Your task to perform on an android device: add a contact in the contacts app Image 0: 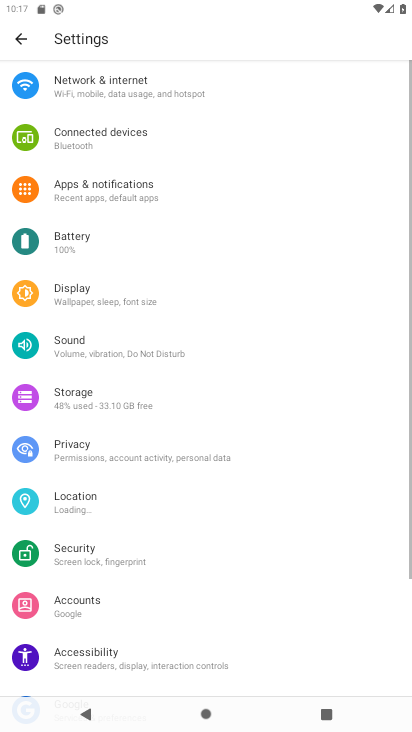
Step 0: press home button
Your task to perform on an android device: add a contact in the contacts app Image 1: 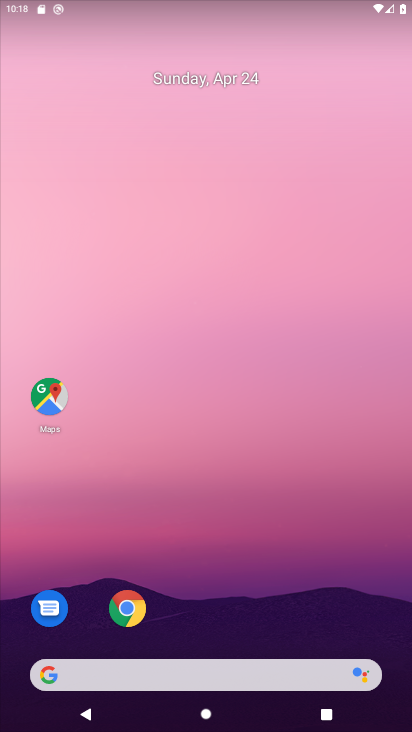
Step 1: drag from (197, 631) to (200, 12)
Your task to perform on an android device: add a contact in the contacts app Image 2: 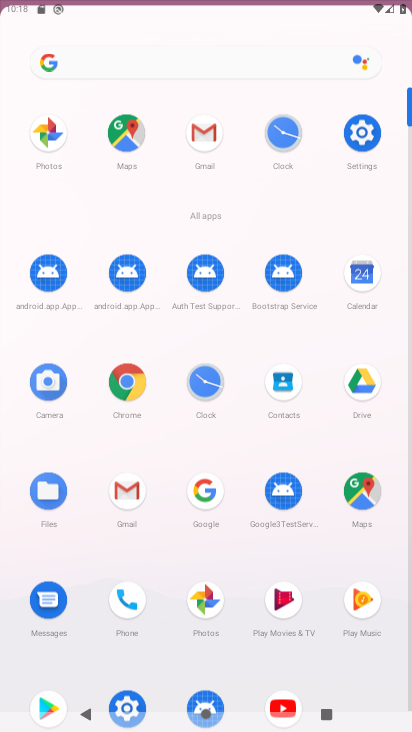
Step 2: click (135, 581)
Your task to perform on an android device: add a contact in the contacts app Image 3: 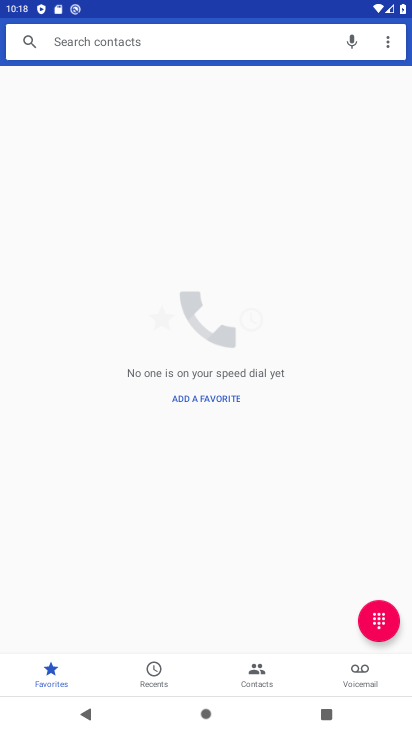
Step 3: click (268, 676)
Your task to perform on an android device: add a contact in the contacts app Image 4: 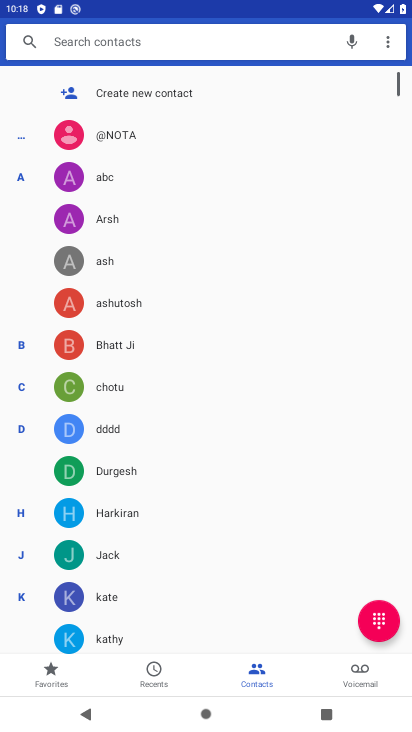
Step 4: click (154, 95)
Your task to perform on an android device: add a contact in the contacts app Image 5: 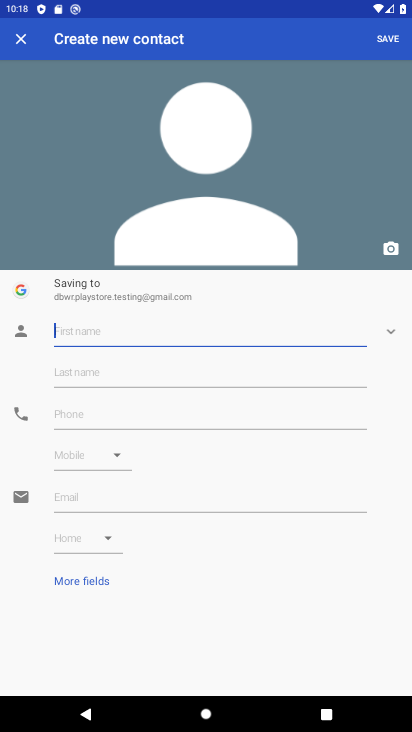
Step 5: type "bg"
Your task to perform on an android device: add a contact in the contacts app Image 6: 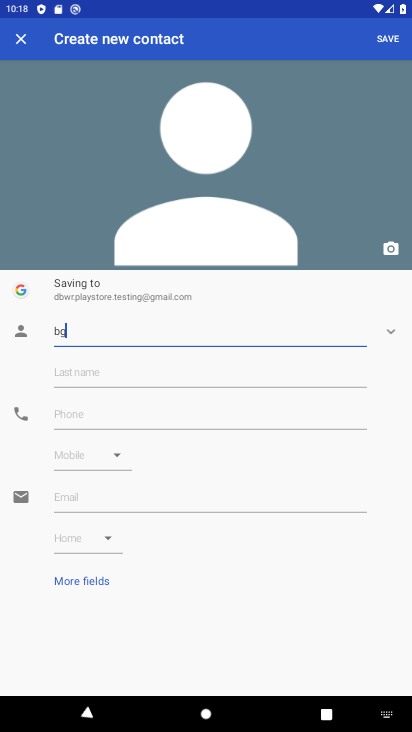
Step 6: type ""
Your task to perform on an android device: add a contact in the contacts app Image 7: 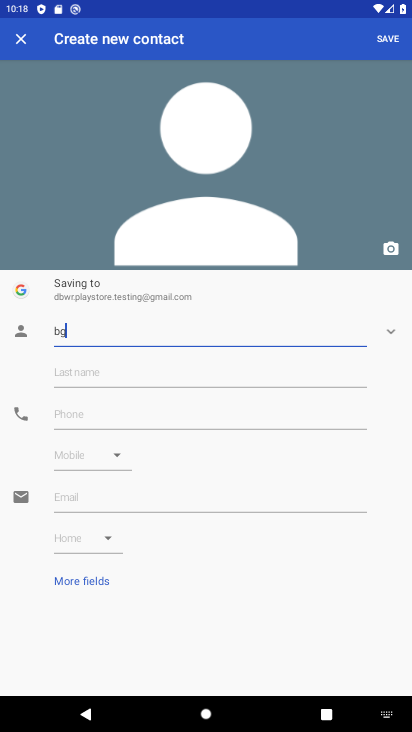
Step 7: click (240, 408)
Your task to perform on an android device: add a contact in the contacts app Image 8: 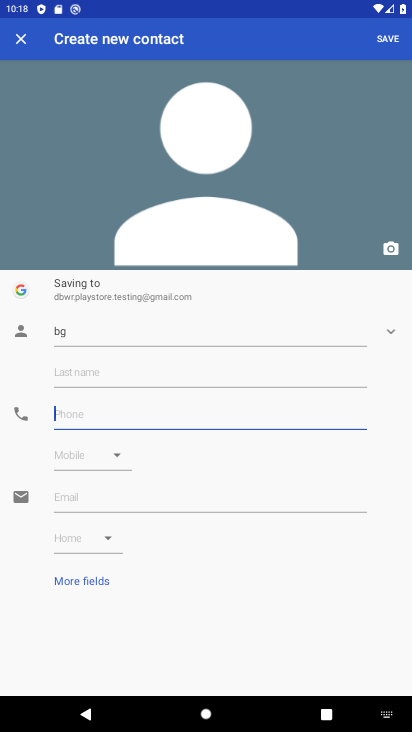
Step 8: type "443"
Your task to perform on an android device: add a contact in the contacts app Image 9: 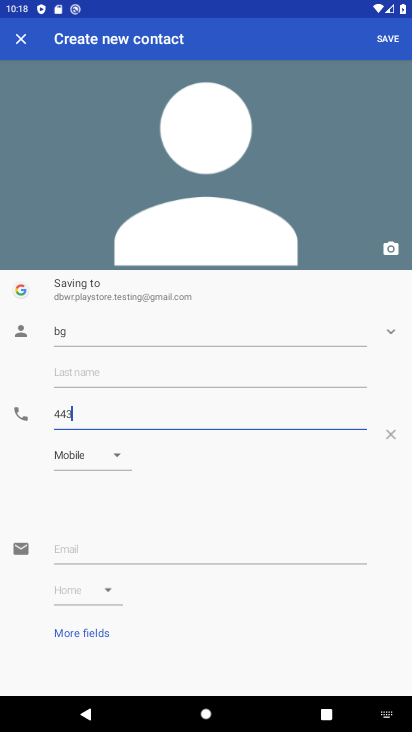
Step 9: type ""
Your task to perform on an android device: add a contact in the contacts app Image 10: 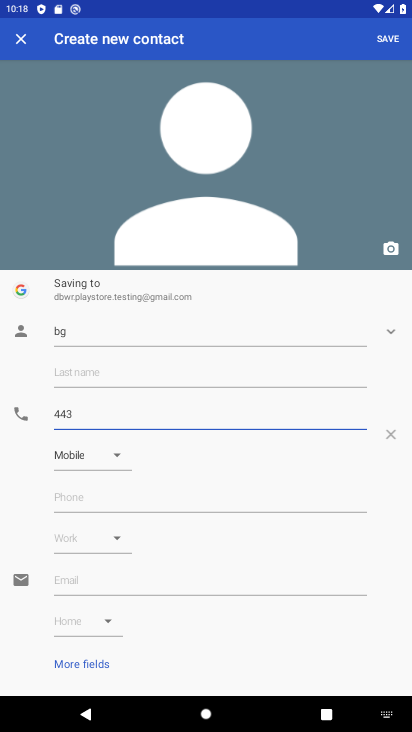
Step 10: click (381, 41)
Your task to perform on an android device: add a contact in the contacts app Image 11: 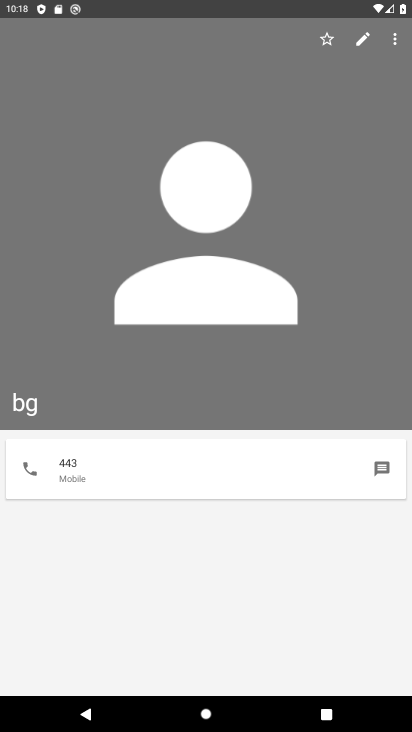
Step 11: task complete